Your task to perform on an android device: Go to Yahoo.com Image 0: 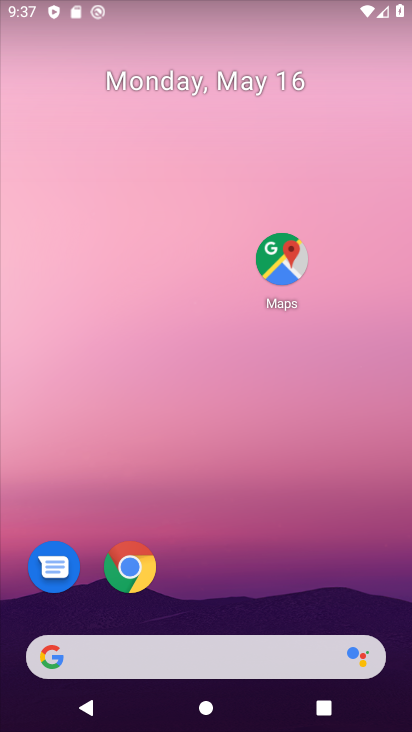
Step 0: drag from (232, 595) to (214, 215)
Your task to perform on an android device: Go to Yahoo.com Image 1: 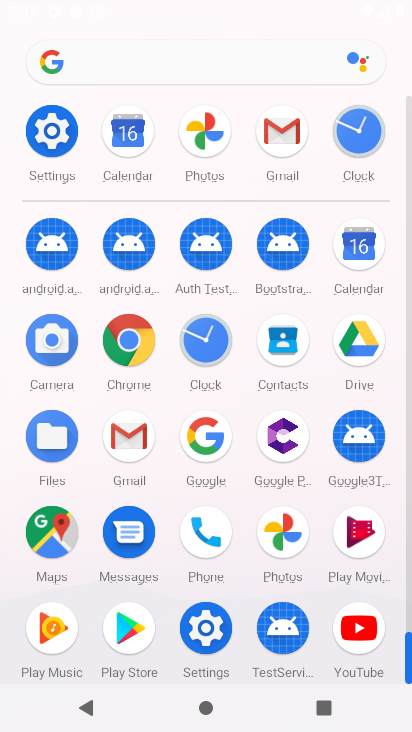
Step 1: click (134, 333)
Your task to perform on an android device: Go to Yahoo.com Image 2: 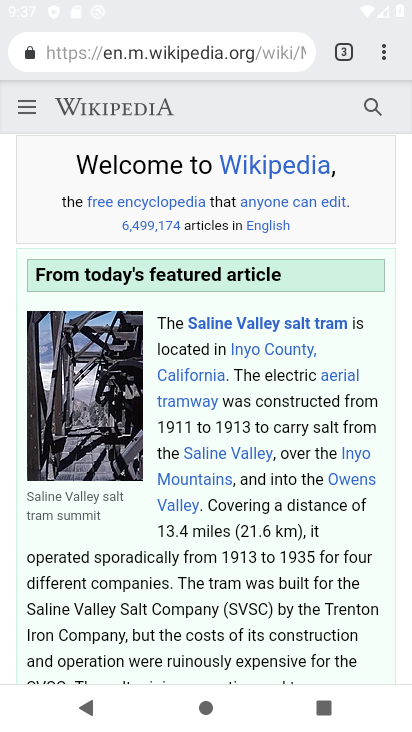
Step 2: click (380, 47)
Your task to perform on an android device: Go to Yahoo.com Image 3: 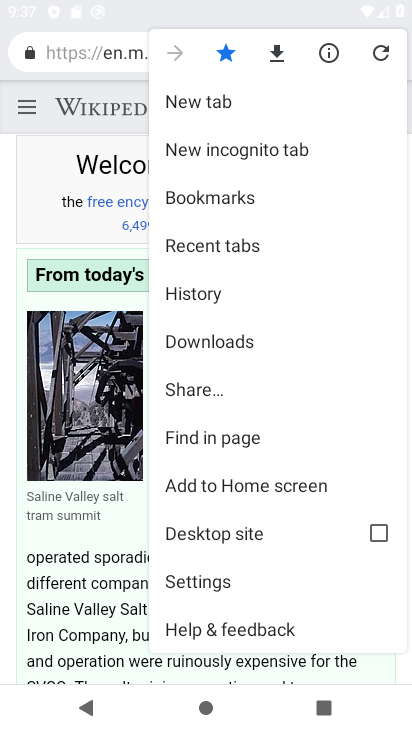
Step 3: click (131, 47)
Your task to perform on an android device: Go to Yahoo.com Image 4: 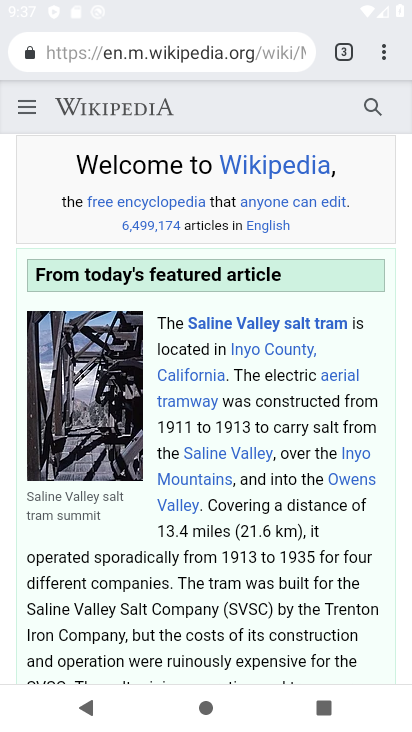
Step 4: click (185, 54)
Your task to perform on an android device: Go to Yahoo.com Image 5: 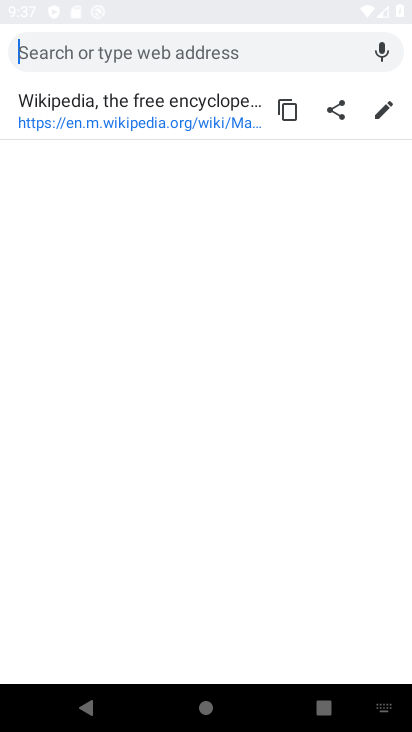
Step 5: type "yahoo.com"
Your task to perform on an android device: Go to Yahoo.com Image 6: 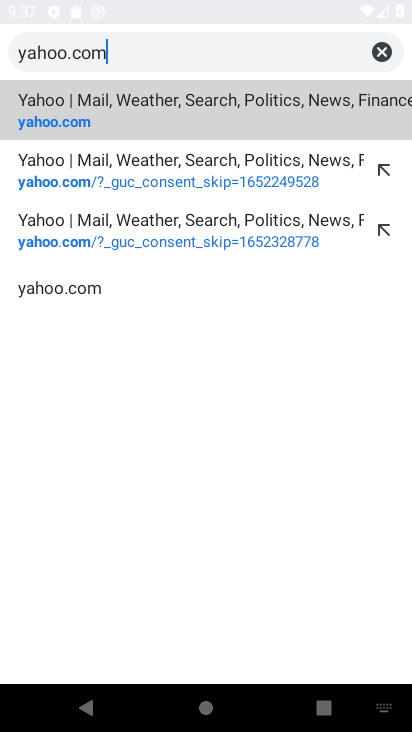
Step 6: click (291, 123)
Your task to perform on an android device: Go to Yahoo.com Image 7: 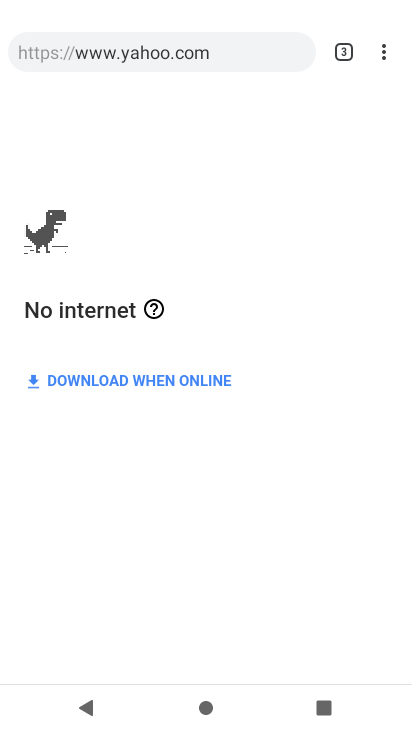
Step 7: task complete